Your task to perform on an android device: What's the weather going to be this weekend? Image 0: 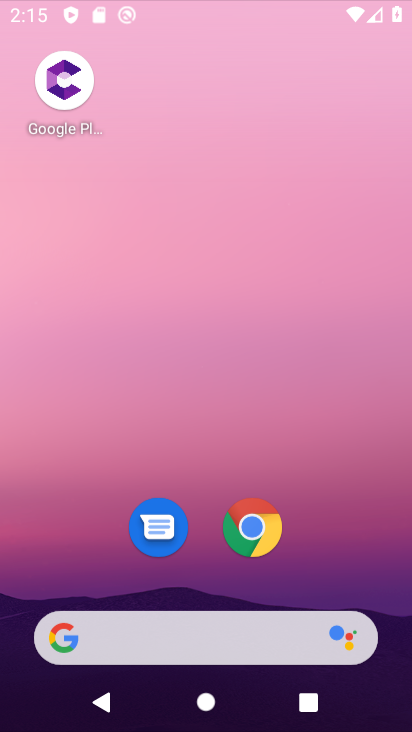
Step 0: click (309, 37)
Your task to perform on an android device: What's the weather going to be this weekend? Image 1: 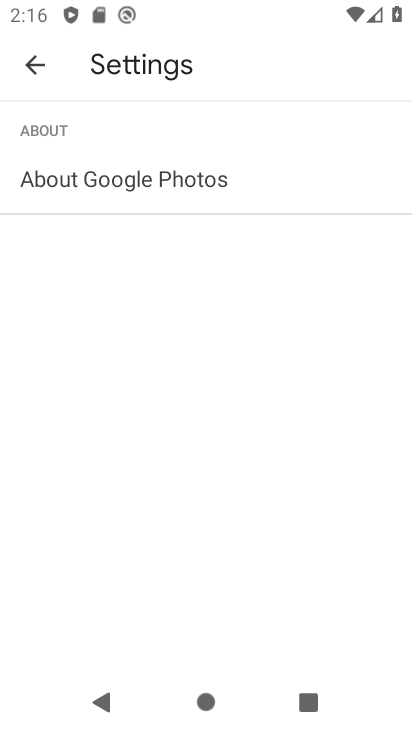
Step 1: press home button
Your task to perform on an android device: What's the weather going to be this weekend? Image 2: 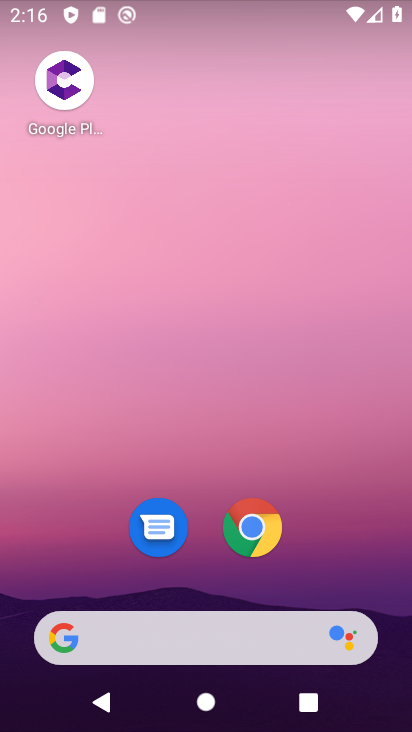
Step 2: drag from (244, 166) to (260, 69)
Your task to perform on an android device: What's the weather going to be this weekend? Image 3: 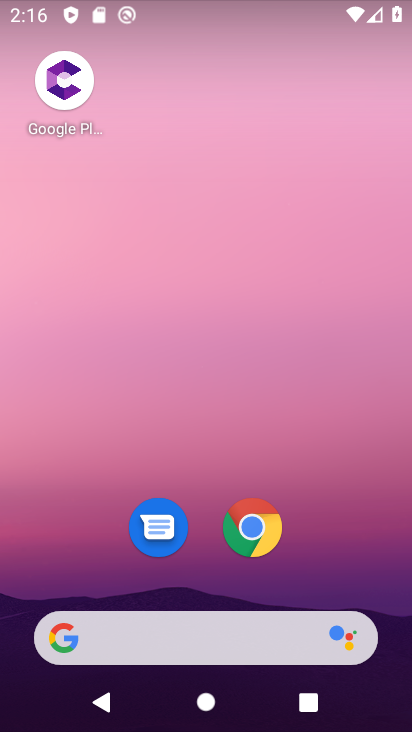
Step 3: drag from (176, 598) to (196, 9)
Your task to perform on an android device: What's the weather going to be this weekend? Image 4: 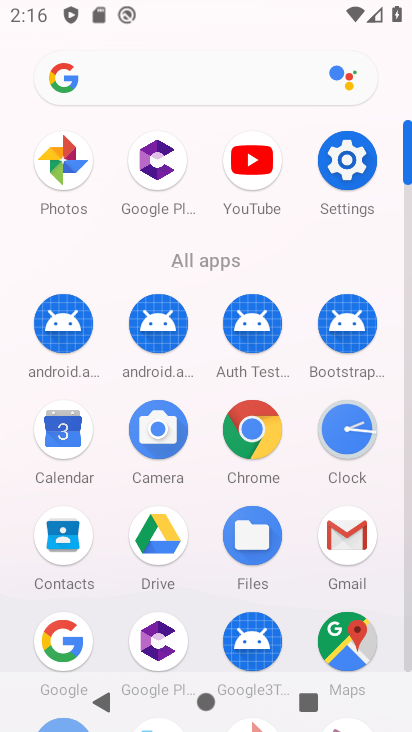
Step 4: click (70, 628)
Your task to perform on an android device: What's the weather going to be this weekend? Image 5: 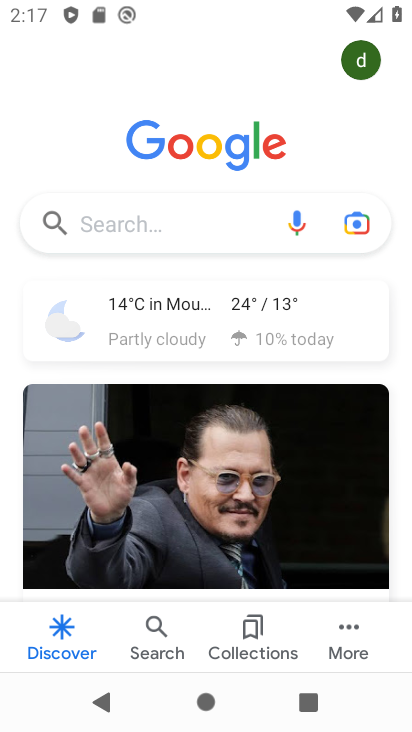
Step 5: click (181, 334)
Your task to perform on an android device: What's the weather going to be this weekend? Image 6: 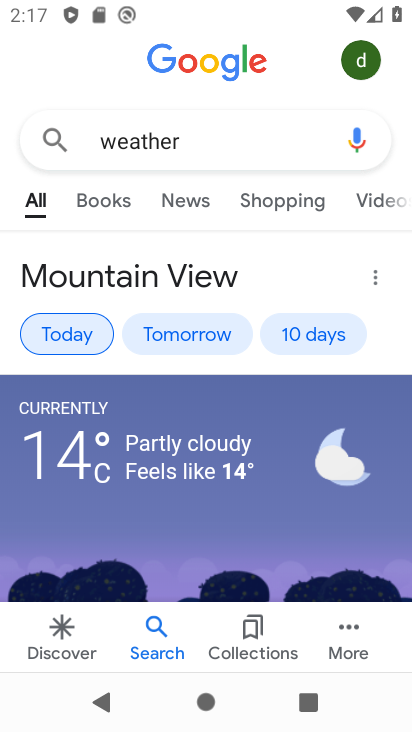
Step 6: task complete